Your task to perform on an android device: Check the weather Image 0: 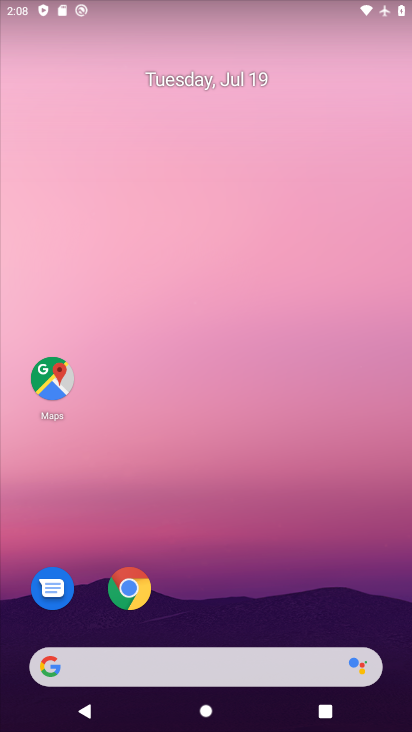
Step 0: press home button
Your task to perform on an android device: Check the weather Image 1: 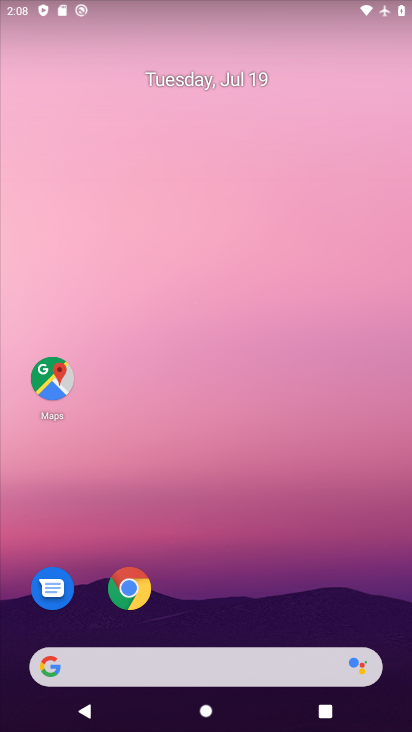
Step 1: click (54, 663)
Your task to perform on an android device: Check the weather Image 2: 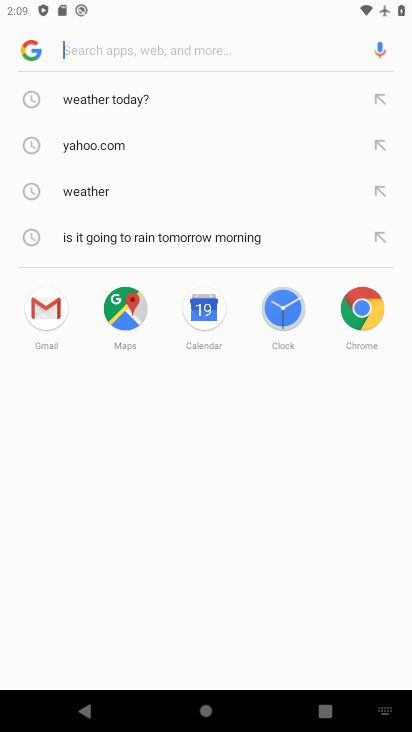
Step 2: click (93, 191)
Your task to perform on an android device: Check the weather Image 3: 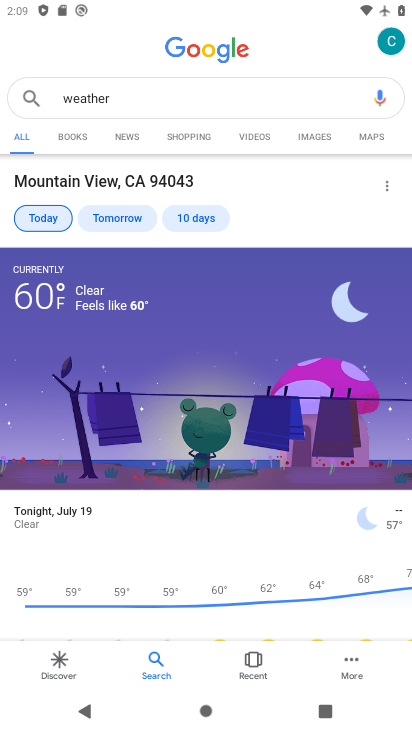
Step 3: task complete